Your task to perform on an android device: delete the emails in spam in the gmail app Image 0: 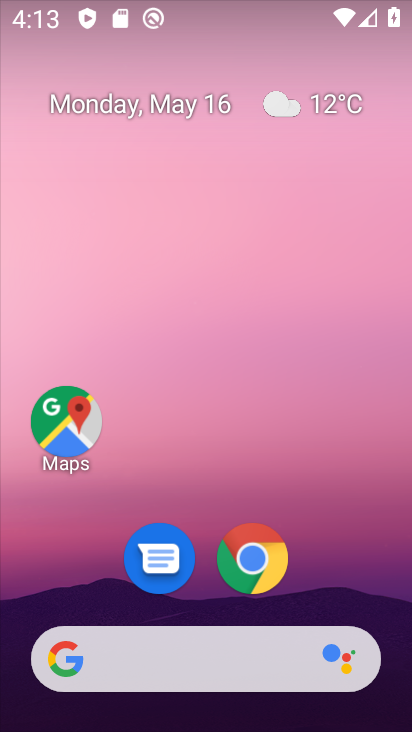
Step 0: drag from (371, 585) to (327, 138)
Your task to perform on an android device: delete the emails in spam in the gmail app Image 1: 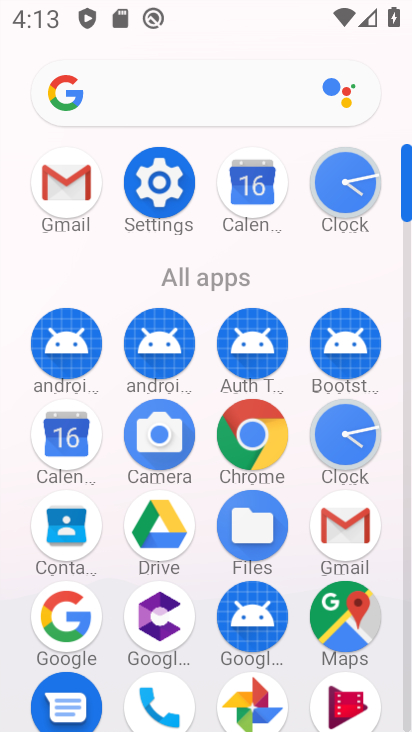
Step 1: click (345, 542)
Your task to perform on an android device: delete the emails in spam in the gmail app Image 2: 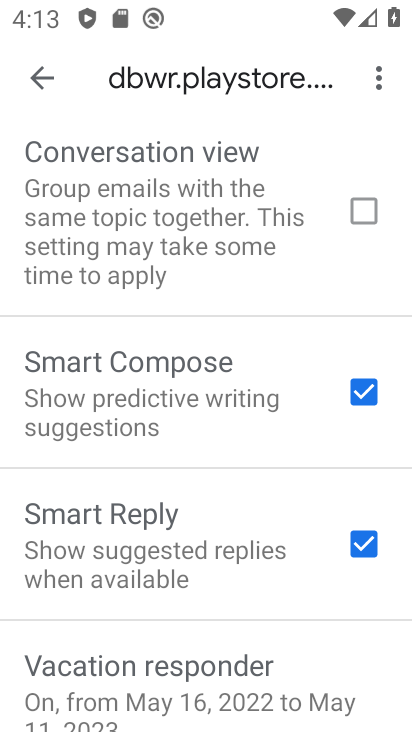
Step 2: press back button
Your task to perform on an android device: delete the emails in spam in the gmail app Image 3: 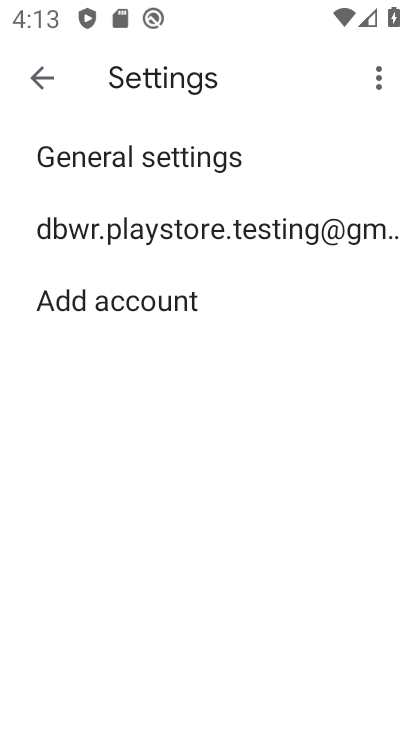
Step 3: press back button
Your task to perform on an android device: delete the emails in spam in the gmail app Image 4: 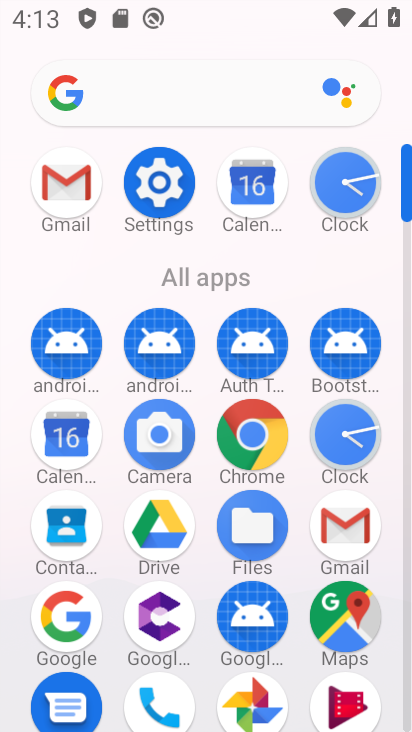
Step 4: click (360, 541)
Your task to perform on an android device: delete the emails in spam in the gmail app Image 5: 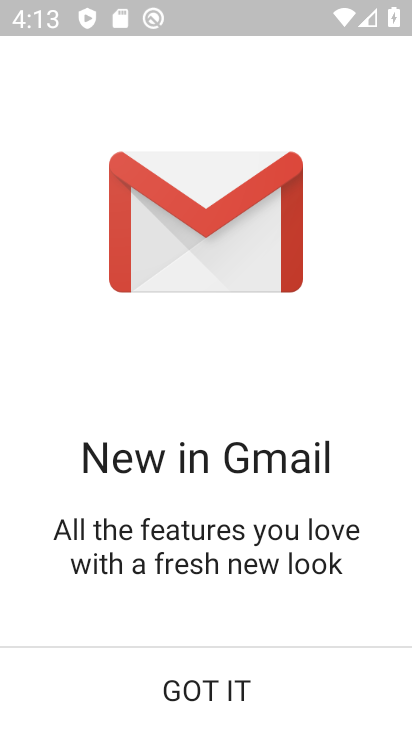
Step 5: click (233, 691)
Your task to perform on an android device: delete the emails in spam in the gmail app Image 6: 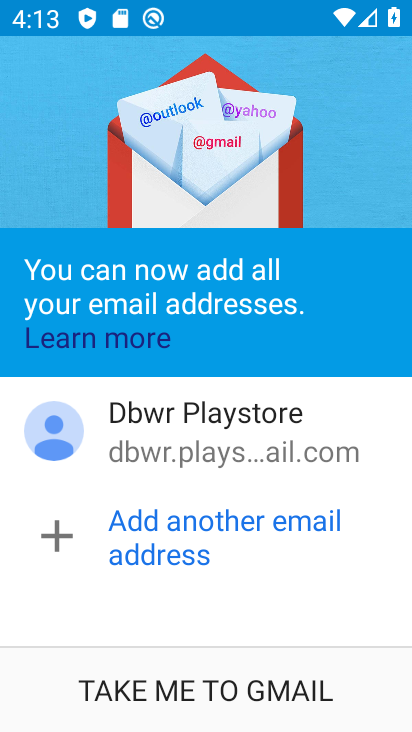
Step 6: click (244, 688)
Your task to perform on an android device: delete the emails in spam in the gmail app Image 7: 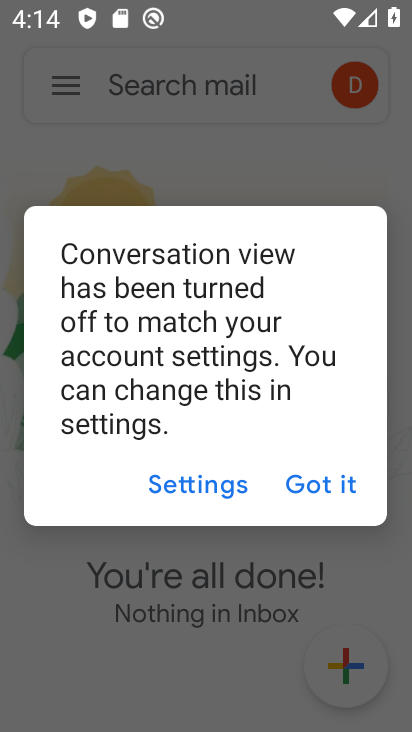
Step 7: click (326, 491)
Your task to perform on an android device: delete the emails in spam in the gmail app Image 8: 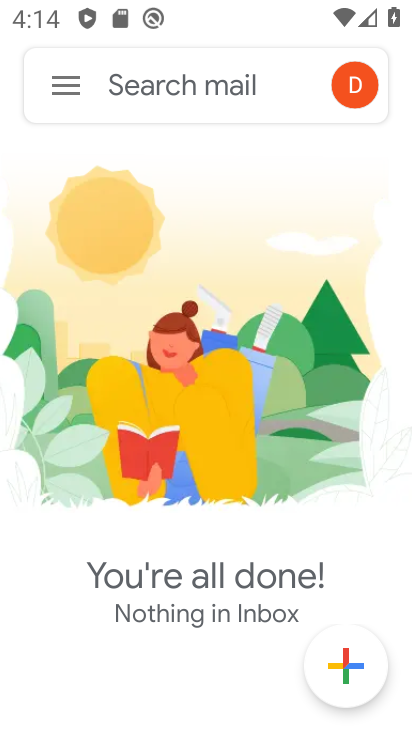
Step 8: click (59, 87)
Your task to perform on an android device: delete the emails in spam in the gmail app Image 9: 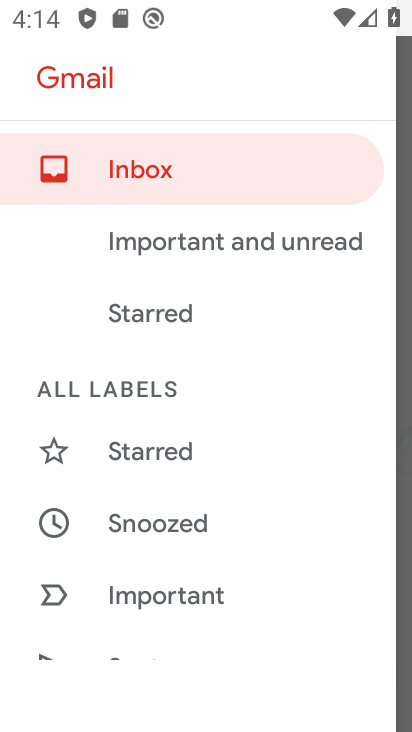
Step 9: drag from (224, 534) to (215, 222)
Your task to perform on an android device: delete the emails in spam in the gmail app Image 10: 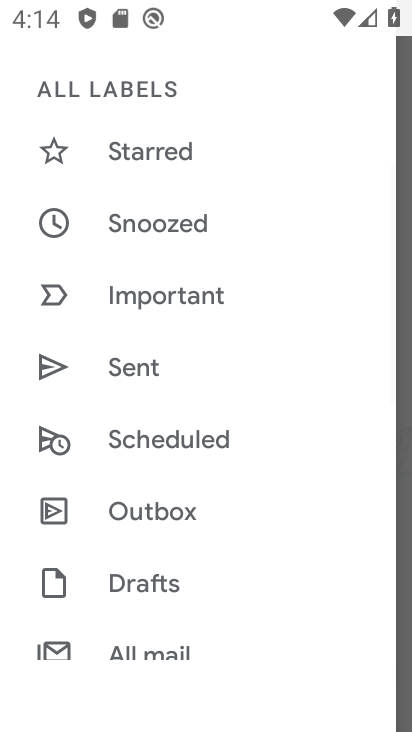
Step 10: drag from (205, 632) to (238, 311)
Your task to perform on an android device: delete the emails in spam in the gmail app Image 11: 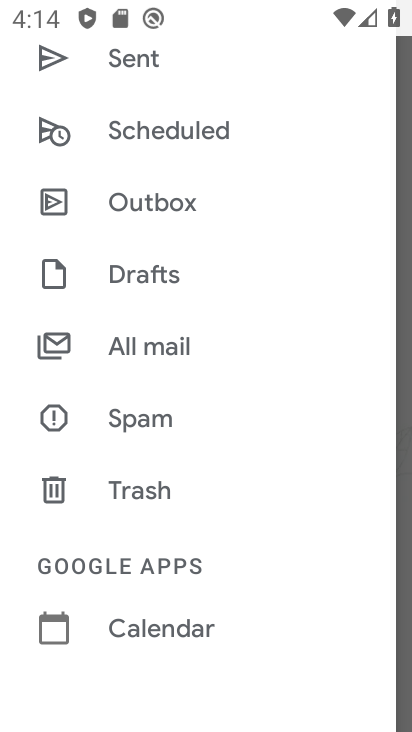
Step 11: click (174, 421)
Your task to perform on an android device: delete the emails in spam in the gmail app Image 12: 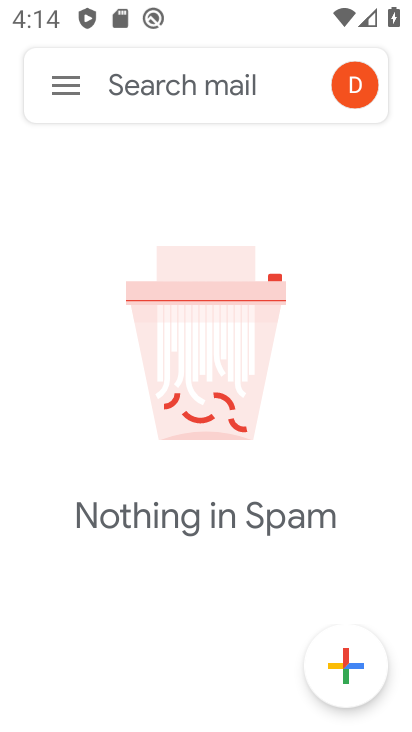
Step 12: task complete